Your task to perform on an android device: set an alarm Image 0: 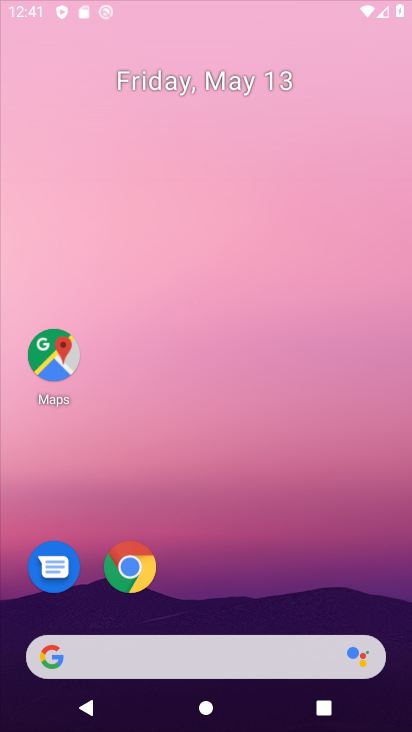
Step 0: click (273, 76)
Your task to perform on an android device: set an alarm Image 1: 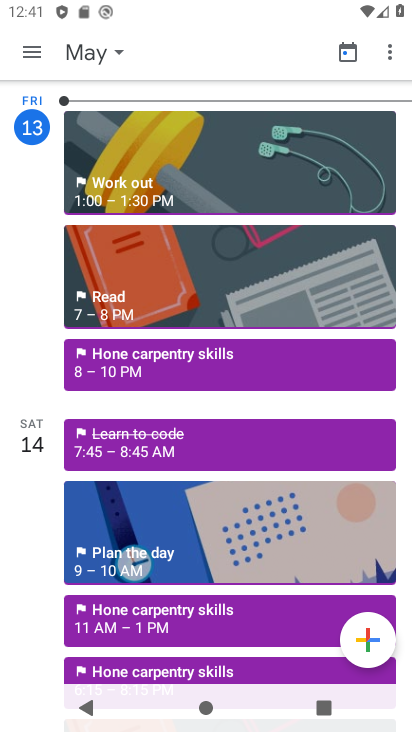
Step 1: press home button
Your task to perform on an android device: set an alarm Image 2: 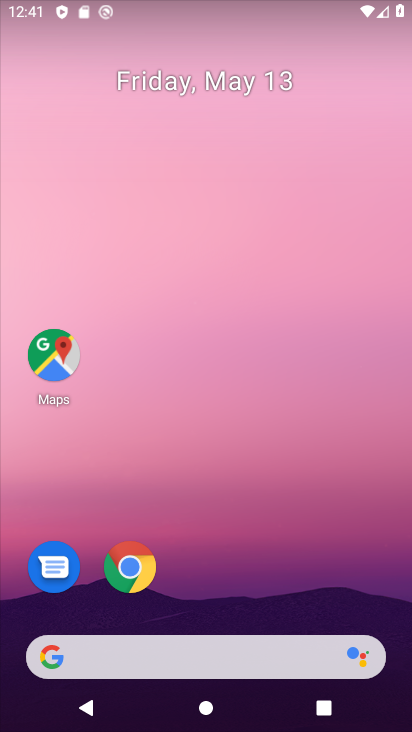
Step 2: drag from (233, 601) to (206, 161)
Your task to perform on an android device: set an alarm Image 3: 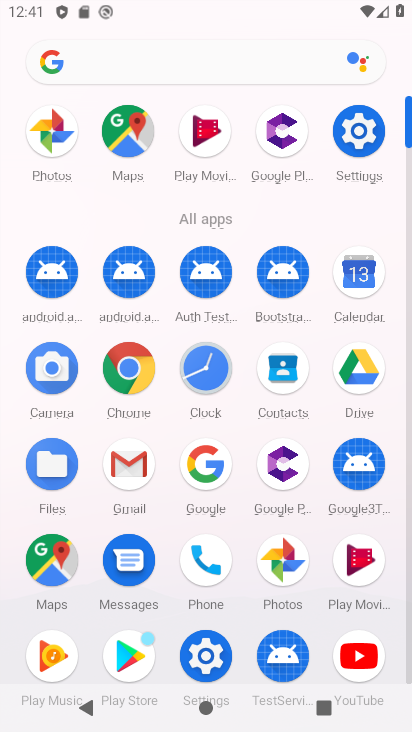
Step 3: drag from (209, 366) to (275, 262)
Your task to perform on an android device: set an alarm Image 4: 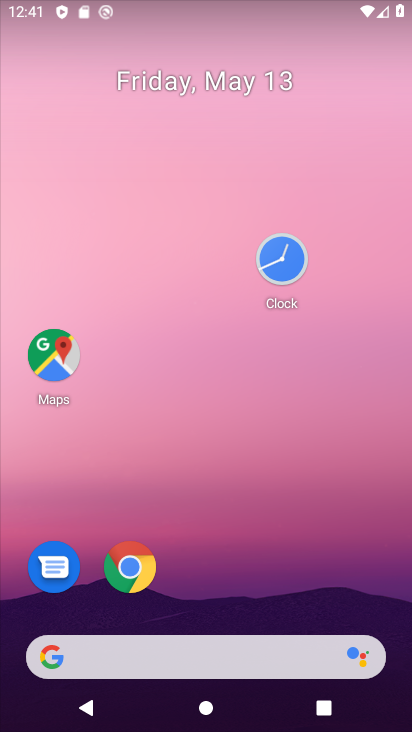
Step 4: click (275, 262)
Your task to perform on an android device: set an alarm Image 5: 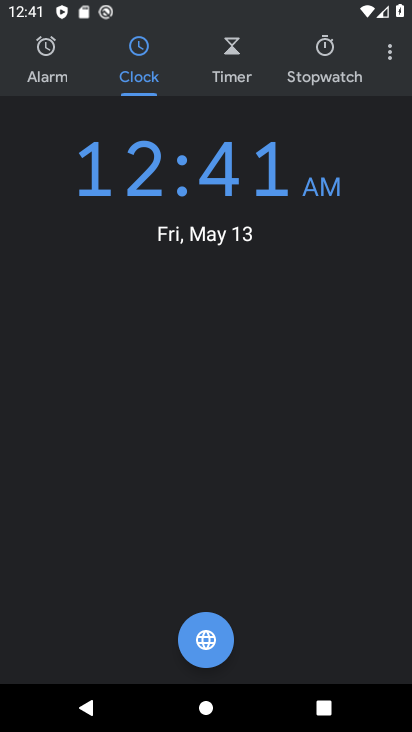
Step 5: click (42, 53)
Your task to perform on an android device: set an alarm Image 6: 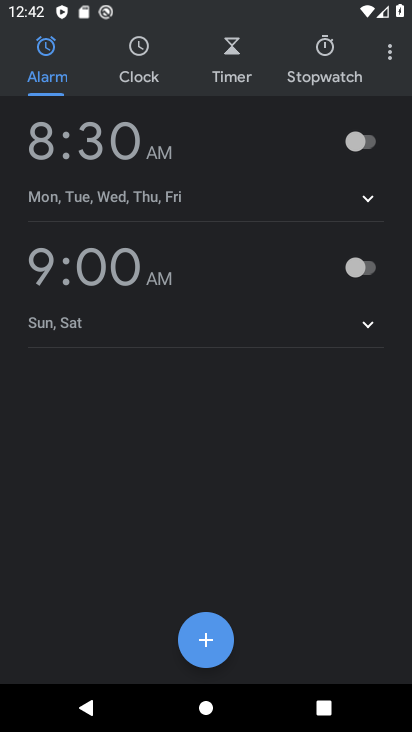
Step 6: click (351, 159)
Your task to perform on an android device: set an alarm Image 7: 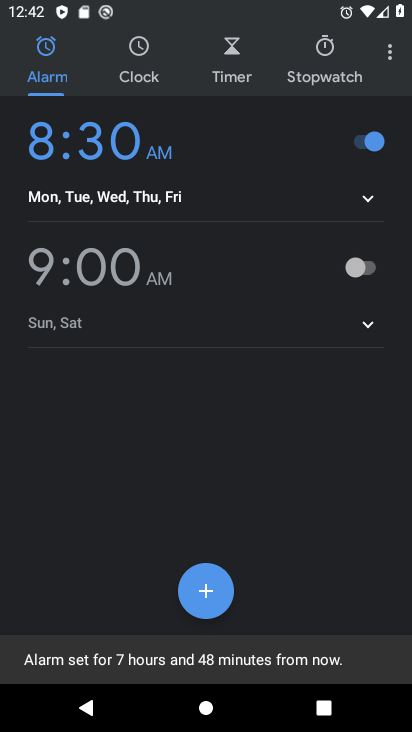
Step 7: task complete